Your task to perform on an android device: Open Google Chrome and open the bookmarks view Image 0: 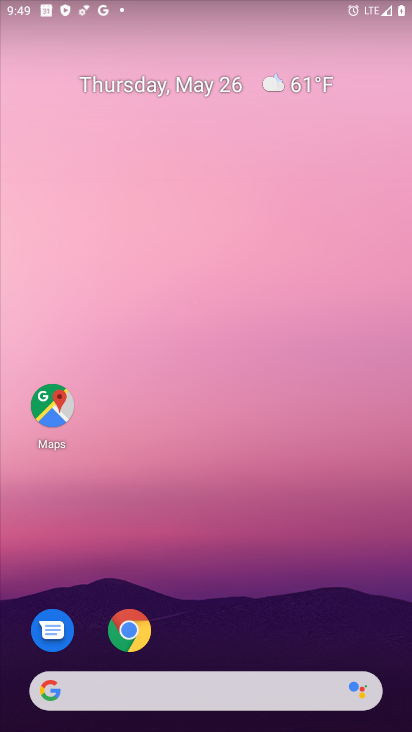
Step 0: click (145, 634)
Your task to perform on an android device: Open Google Chrome and open the bookmarks view Image 1: 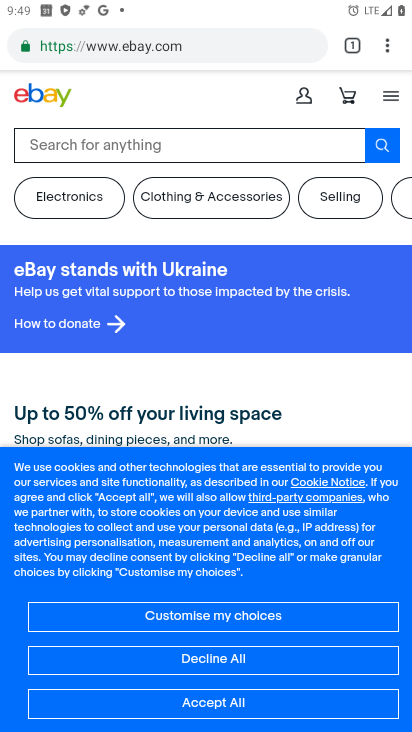
Step 1: click (387, 52)
Your task to perform on an android device: Open Google Chrome and open the bookmarks view Image 2: 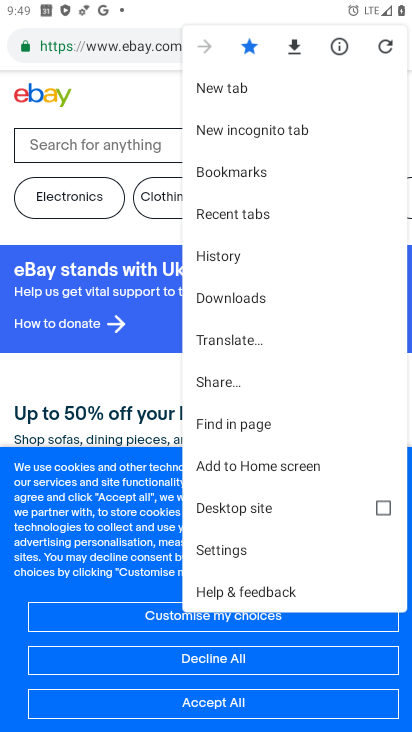
Step 2: click (236, 180)
Your task to perform on an android device: Open Google Chrome and open the bookmarks view Image 3: 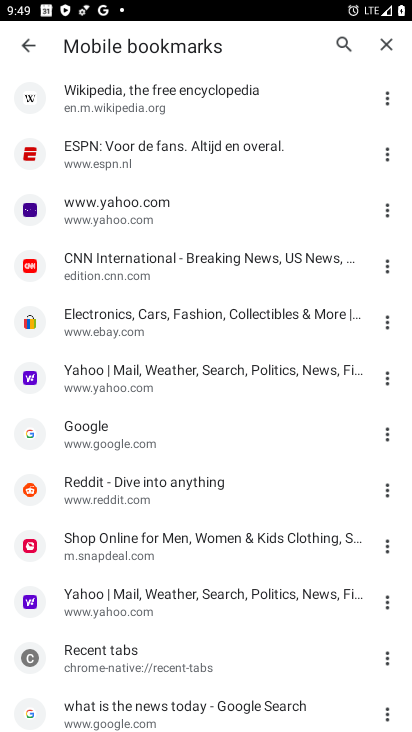
Step 3: task complete